Your task to perform on an android device: Go to sound settings Image 0: 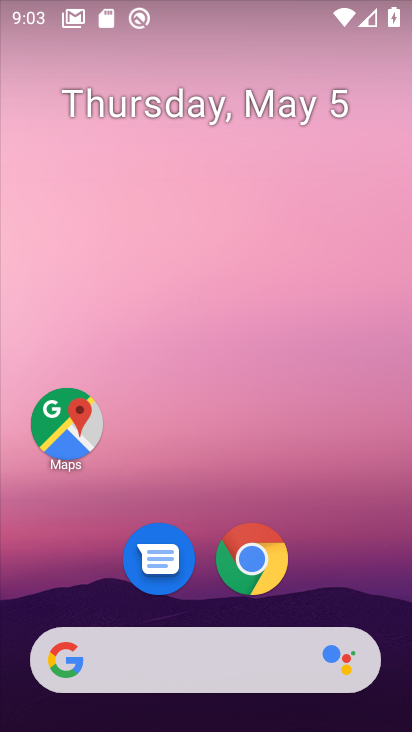
Step 0: drag from (48, 570) to (277, 188)
Your task to perform on an android device: Go to sound settings Image 1: 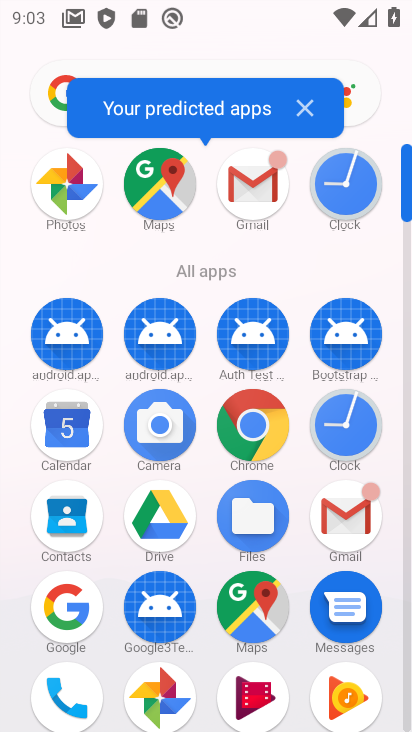
Step 1: drag from (128, 636) to (262, 233)
Your task to perform on an android device: Go to sound settings Image 2: 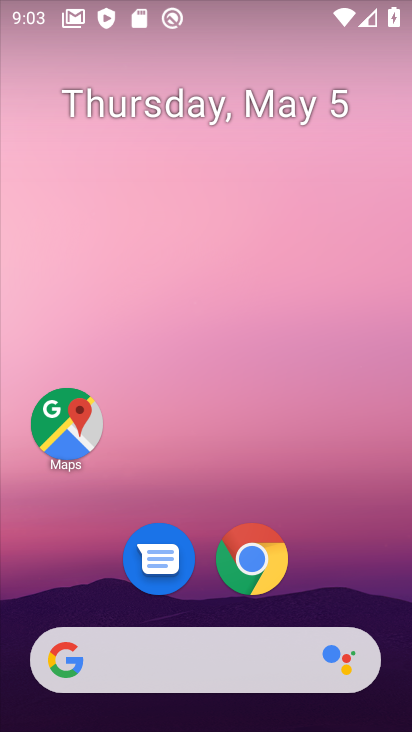
Step 2: drag from (24, 638) to (284, 188)
Your task to perform on an android device: Go to sound settings Image 3: 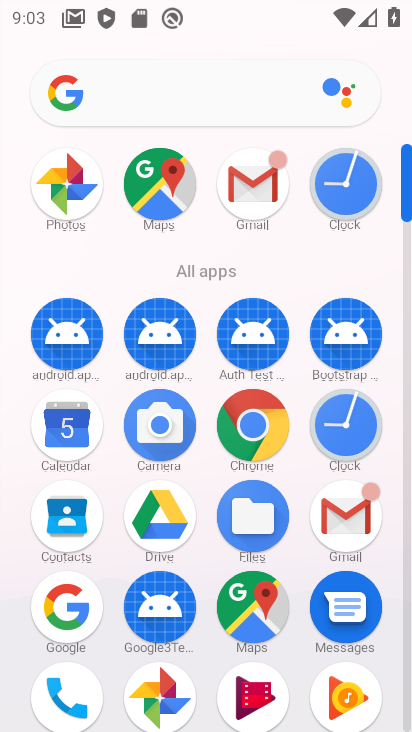
Step 3: drag from (171, 649) to (328, 120)
Your task to perform on an android device: Go to sound settings Image 4: 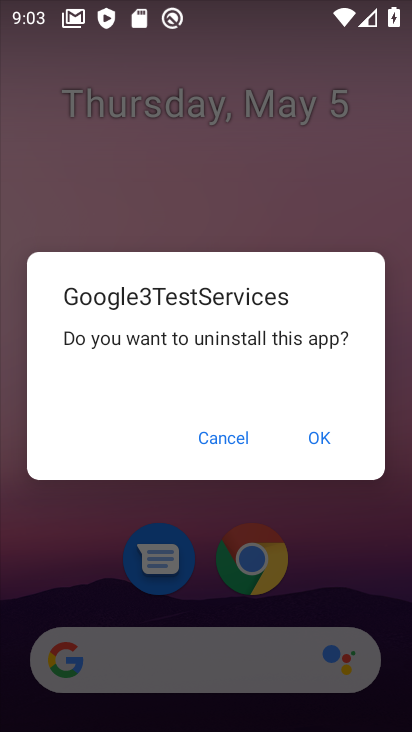
Step 4: press home button
Your task to perform on an android device: Go to sound settings Image 5: 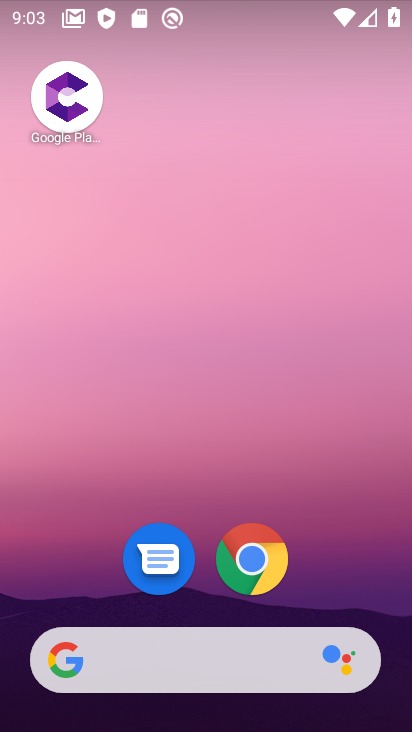
Step 5: drag from (67, 617) to (279, 302)
Your task to perform on an android device: Go to sound settings Image 6: 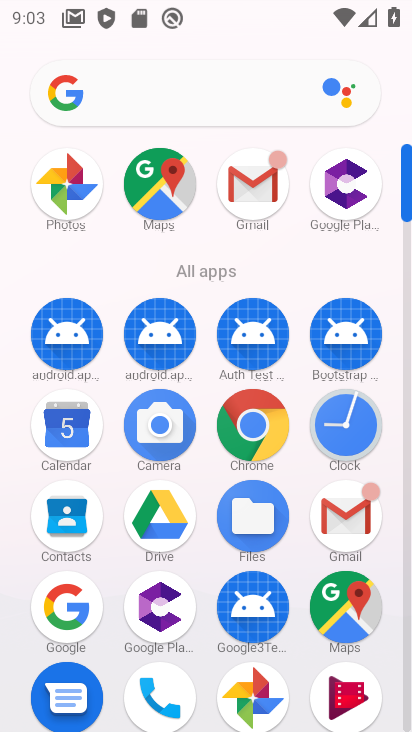
Step 6: drag from (1, 678) to (60, 309)
Your task to perform on an android device: Go to sound settings Image 7: 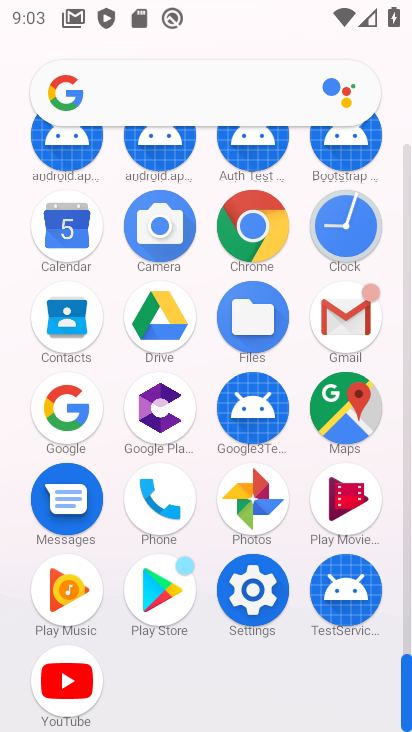
Step 7: click (250, 593)
Your task to perform on an android device: Go to sound settings Image 8: 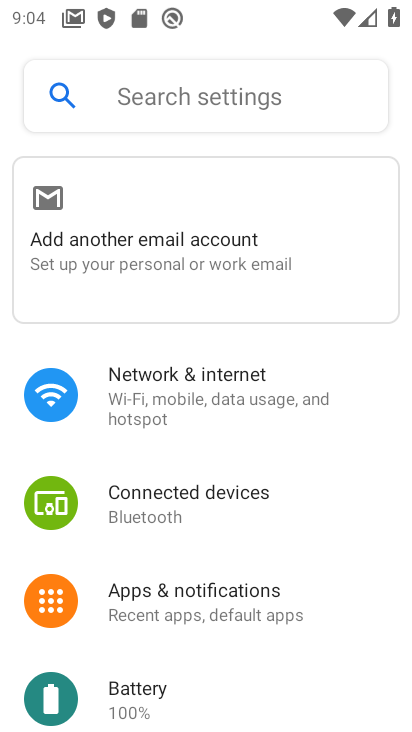
Step 8: drag from (180, 659) to (302, 231)
Your task to perform on an android device: Go to sound settings Image 9: 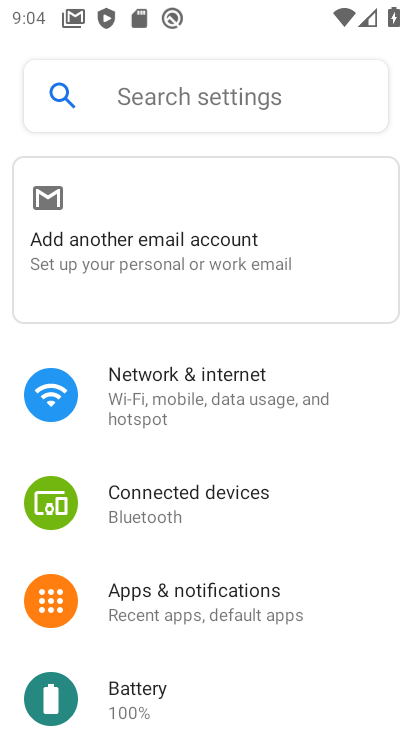
Step 9: drag from (9, 704) to (123, 222)
Your task to perform on an android device: Go to sound settings Image 10: 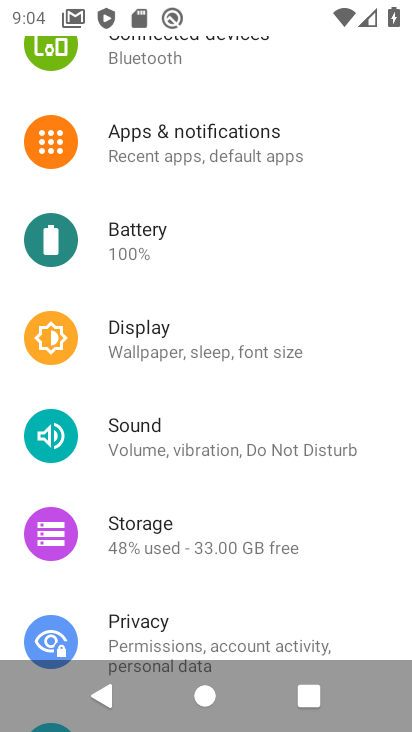
Step 10: click (191, 418)
Your task to perform on an android device: Go to sound settings Image 11: 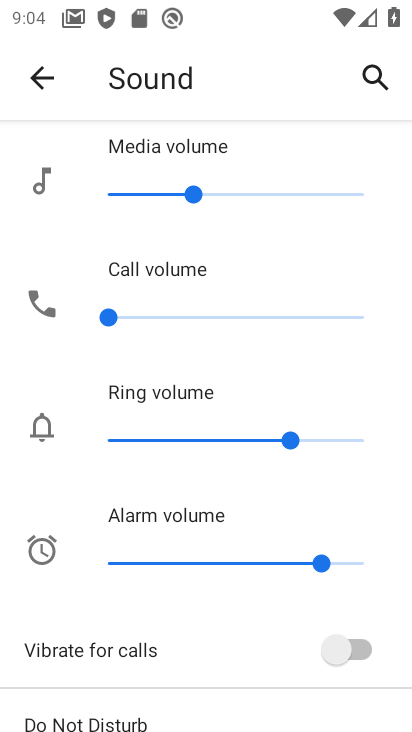
Step 11: task complete